Your task to perform on an android device: change the clock display to show seconds Image 0: 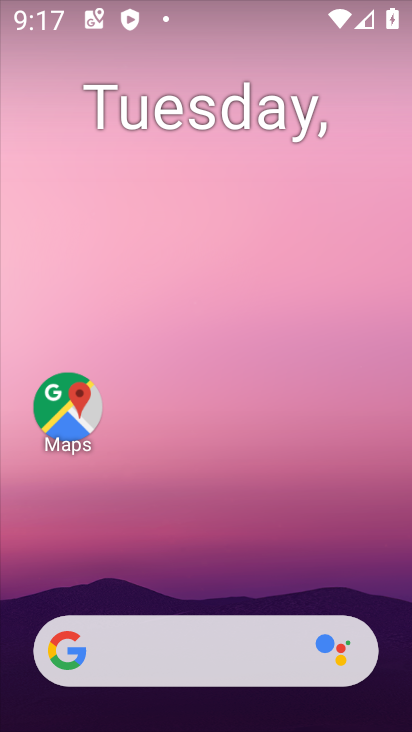
Step 0: click (218, 612)
Your task to perform on an android device: change the clock display to show seconds Image 1: 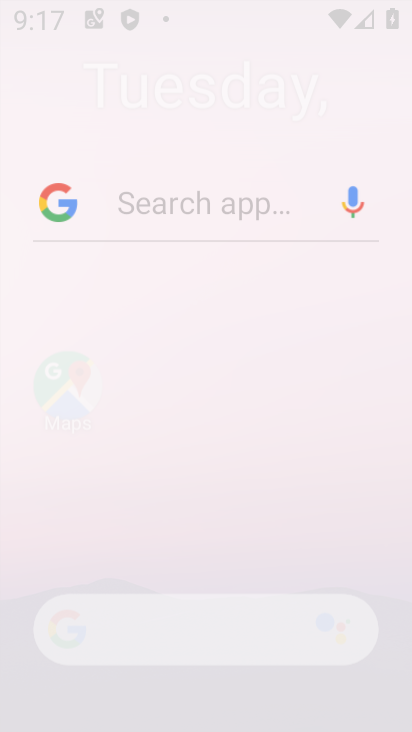
Step 1: drag from (218, 612) to (161, 83)
Your task to perform on an android device: change the clock display to show seconds Image 2: 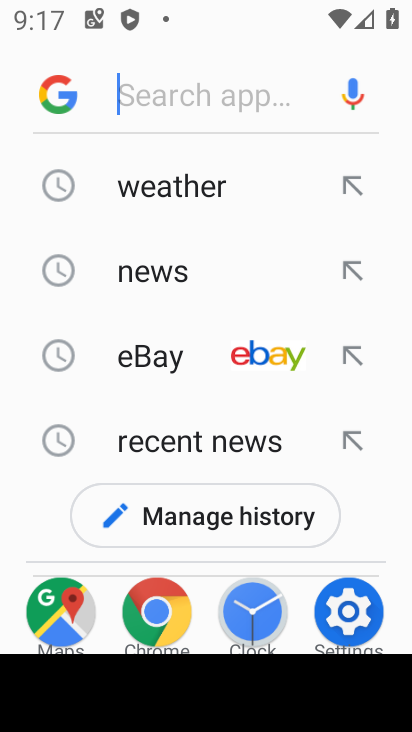
Step 2: press home button
Your task to perform on an android device: change the clock display to show seconds Image 3: 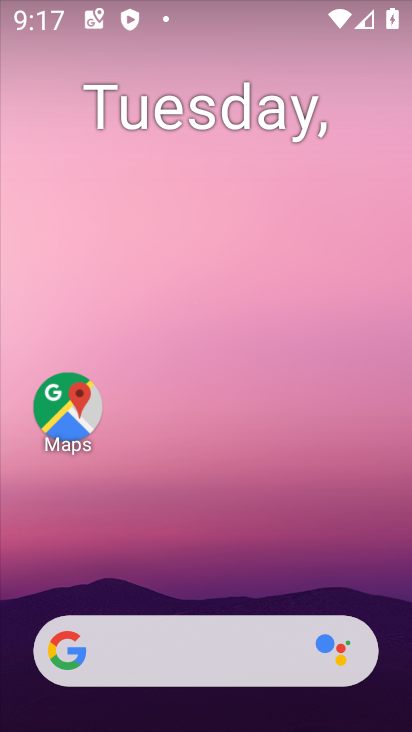
Step 3: drag from (210, 601) to (168, 45)
Your task to perform on an android device: change the clock display to show seconds Image 4: 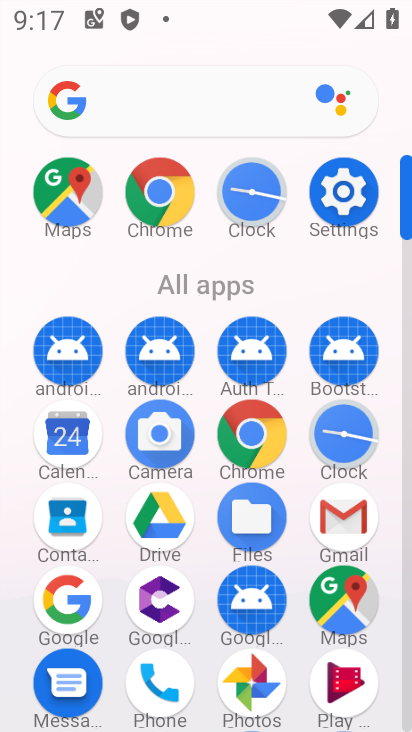
Step 4: click (361, 427)
Your task to perform on an android device: change the clock display to show seconds Image 5: 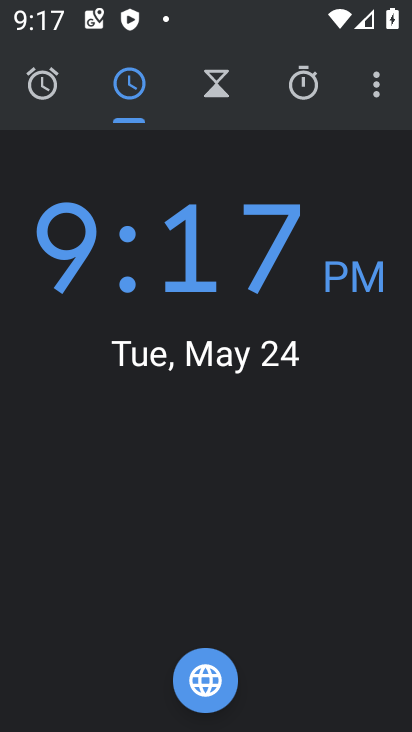
Step 5: click (383, 91)
Your task to perform on an android device: change the clock display to show seconds Image 6: 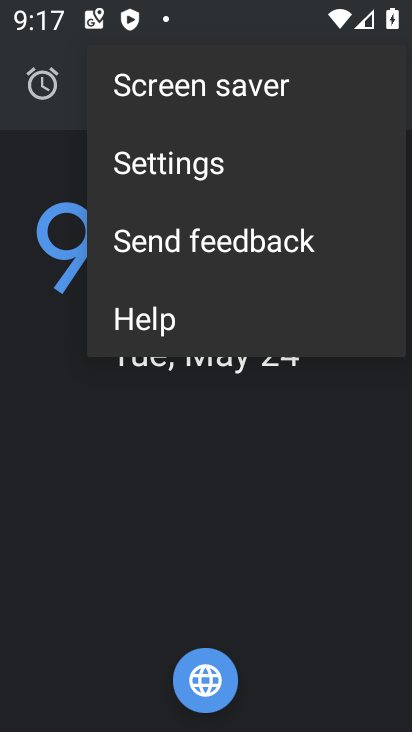
Step 6: click (150, 156)
Your task to perform on an android device: change the clock display to show seconds Image 7: 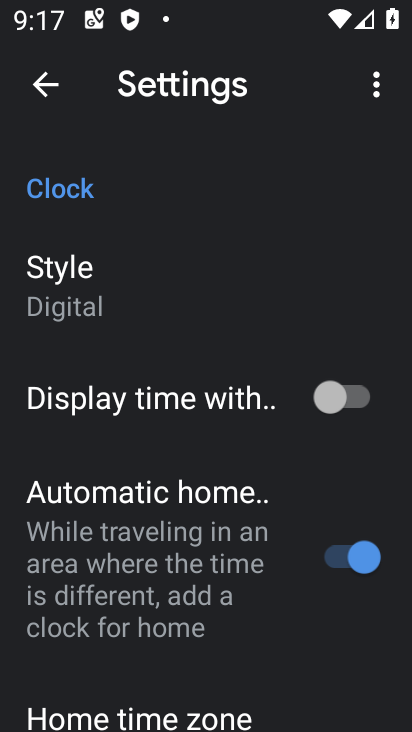
Step 7: click (335, 428)
Your task to perform on an android device: change the clock display to show seconds Image 8: 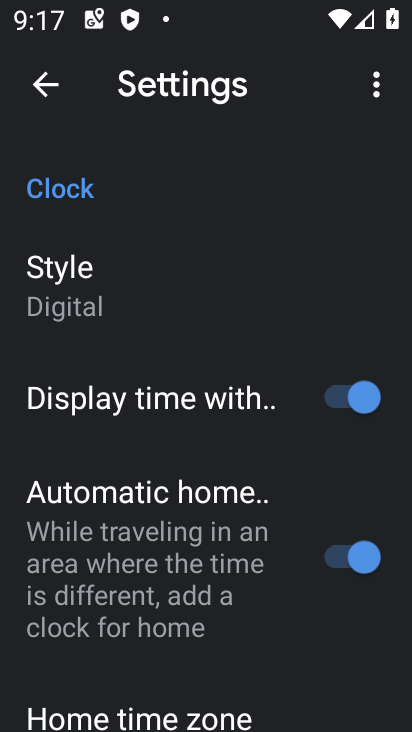
Step 8: task complete